Your task to perform on an android device: change alarm snooze length Image 0: 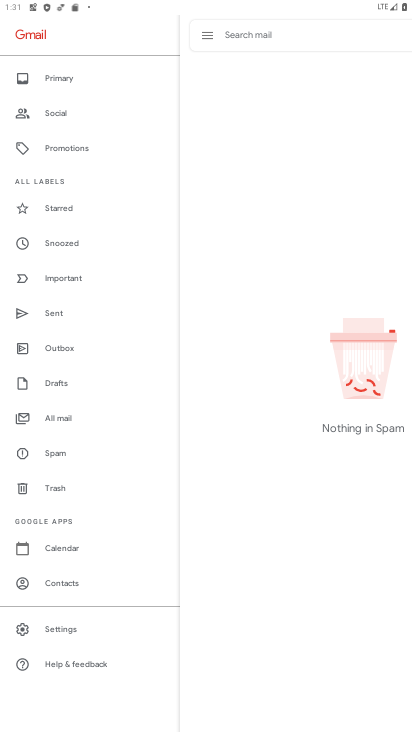
Step 0: press home button
Your task to perform on an android device: change alarm snooze length Image 1: 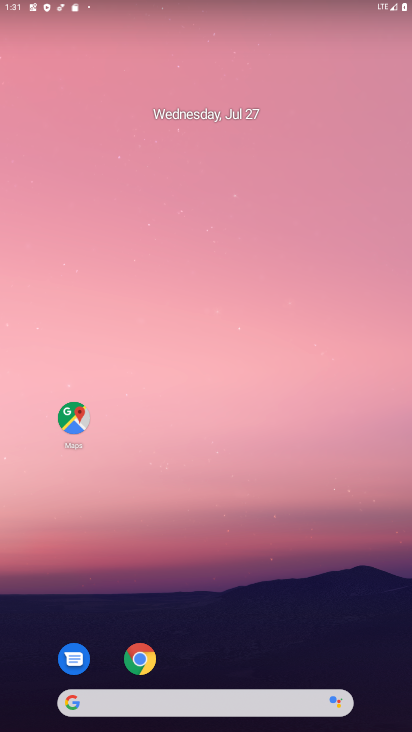
Step 1: drag from (201, 727) to (233, 84)
Your task to perform on an android device: change alarm snooze length Image 2: 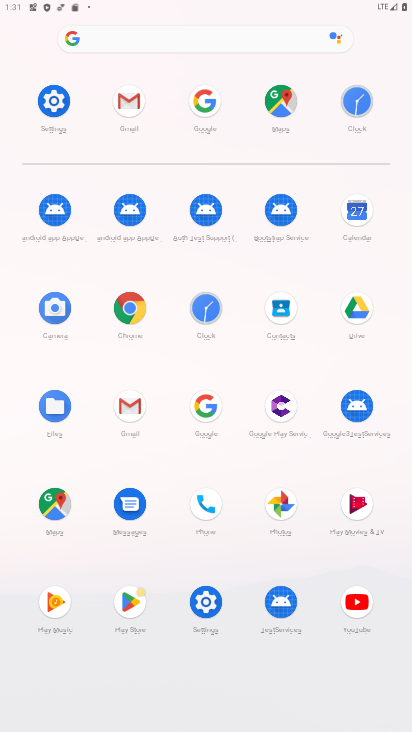
Step 2: click (211, 305)
Your task to perform on an android device: change alarm snooze length Image 3: 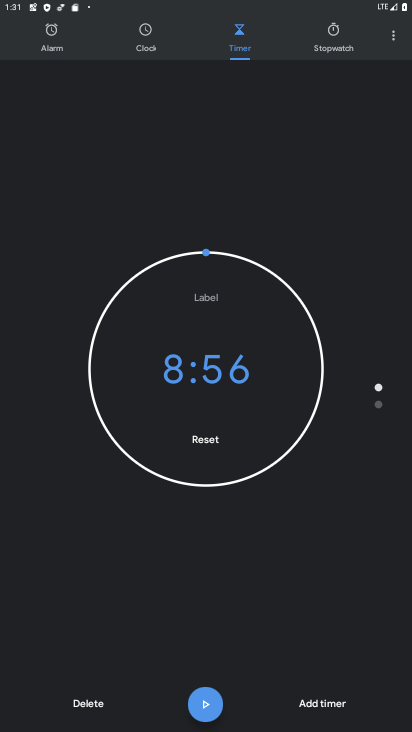
Step 3: click (396, 36)
Your task to perform on an android device: change alarm snooze length Image 4: 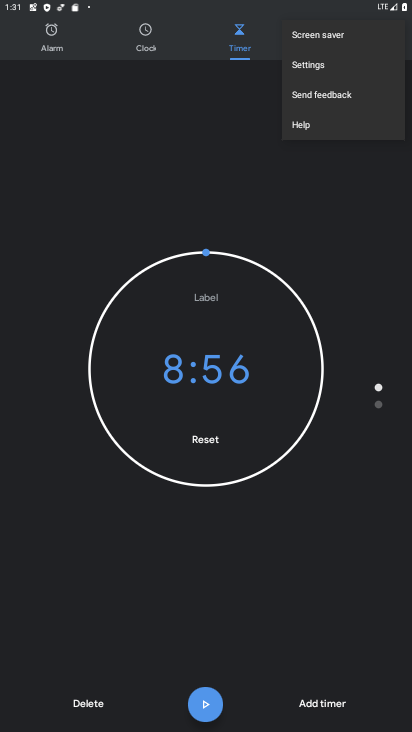
Step 4: click (321, 70)
Your task to perform on an android device: change alarm snooze length Image 5: 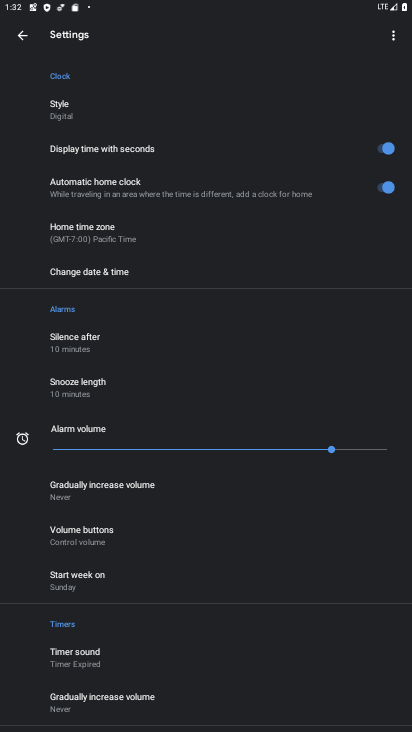
Step 5: task complete